Your task to perform on an android device: check out phone information Image 0: 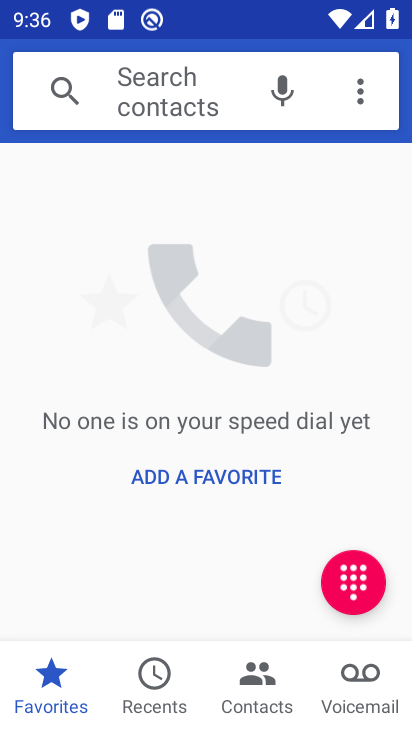
Step 0: press home button
Your task to perform on an android device: check out phone information Image 1: 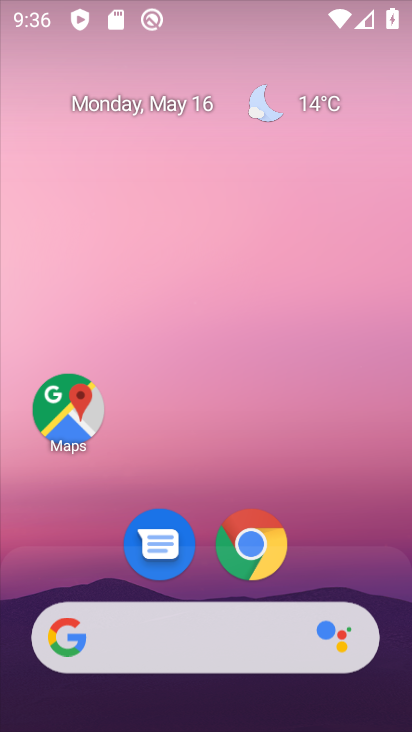
Step 1: drag from (232, 559) to (280, 230)
Your task to perform on an android device: check out phone information Image 2: 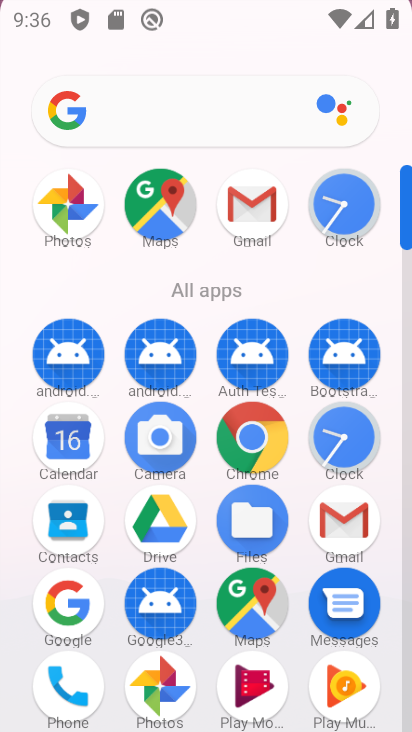
Step 2: drag from (327, 474) to (336, 206)
Your task to perform on an android device: check out phone information Image 3: 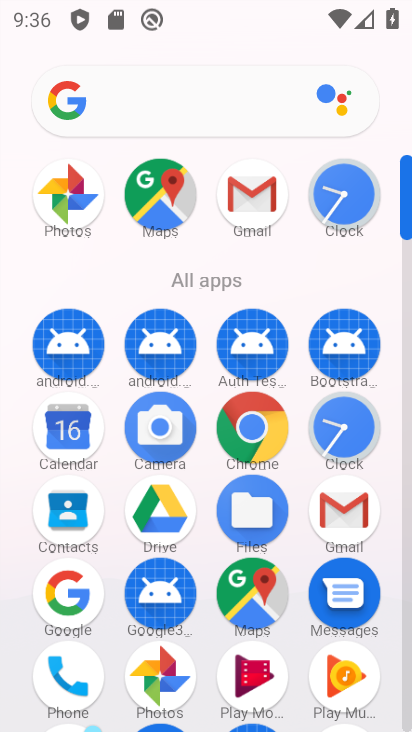
Step 3: drag from (296, 560) to (328, 324)
Your task to perform on an android device: check out phone information Image 4: 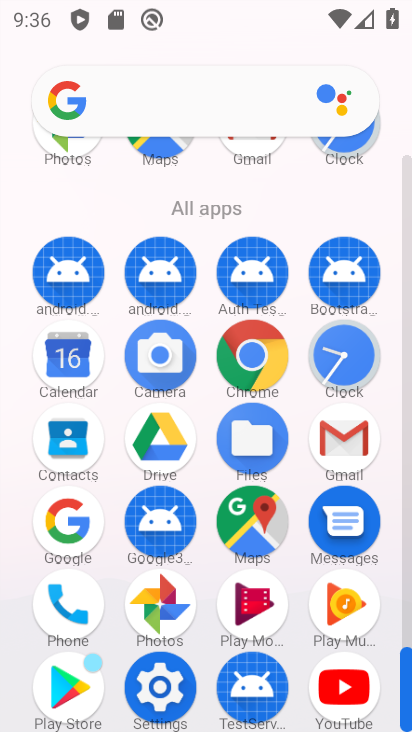
Step 4: drag from (297, 648) to (350, 326)
Your task to perform on an android device: check out phone information Image 5: 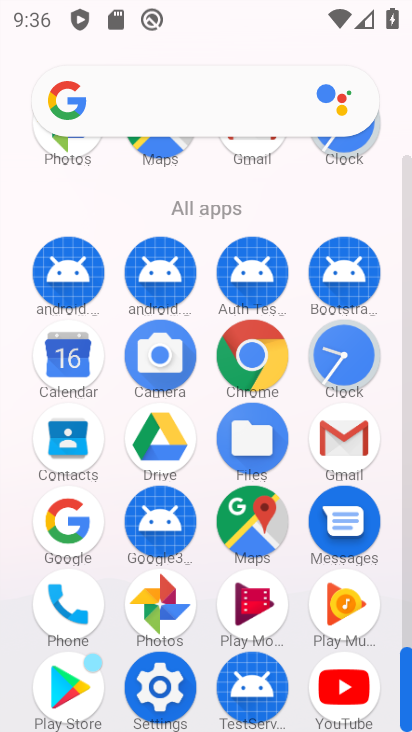
Step 5: click (47, 608)
Your task to perform on an android device: check out phone information Image 6: 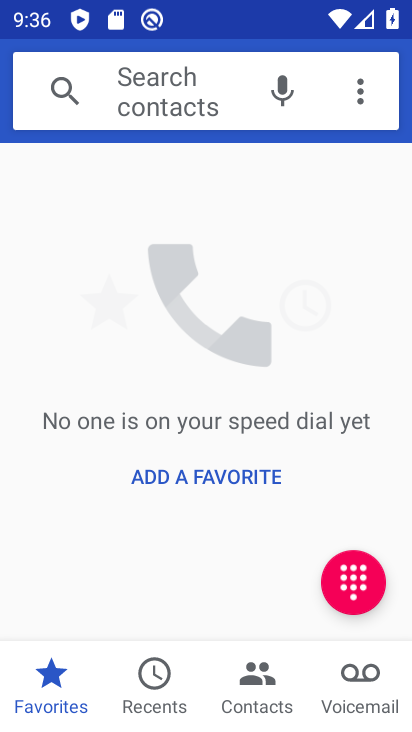
Step 6: click (356, 98)
Your task to perform on an android device: check out phone information Image 7: 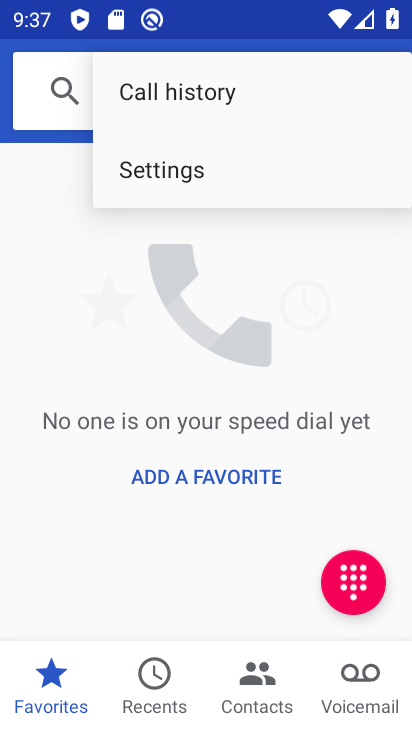
Step 7: click (218, 182)
Your task to perform on an android device: check out phone information Image 8: 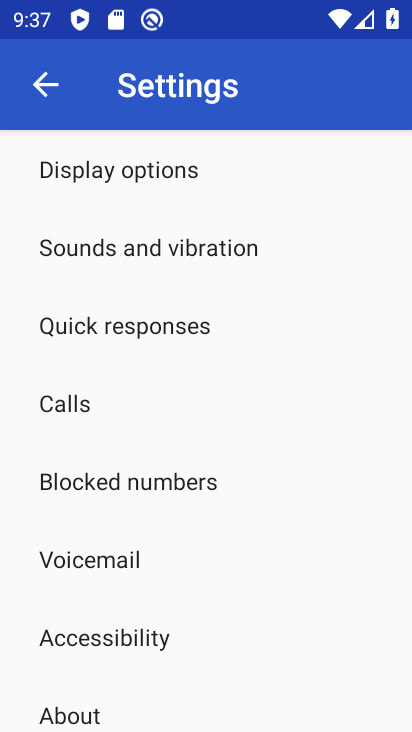
Step 8: drag from (185, 588) to (209, 194)
Your task to perform on an android device: check out phone information Image 9: 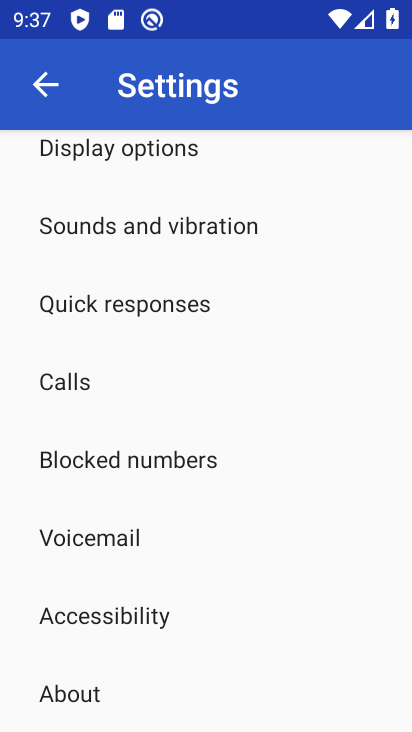
Step 9: click (76, 684)
Your task to perform on an android device: check out phone information Image 10: 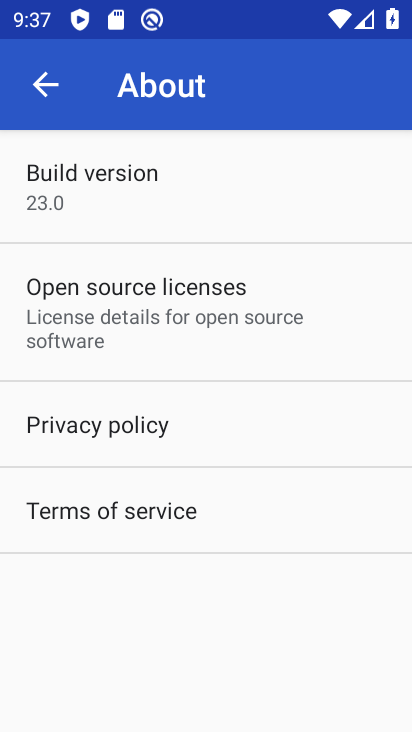
Step 10: task complete